Your task to perform on an android device: open chrome and create a bookmark for the current page Image 0: 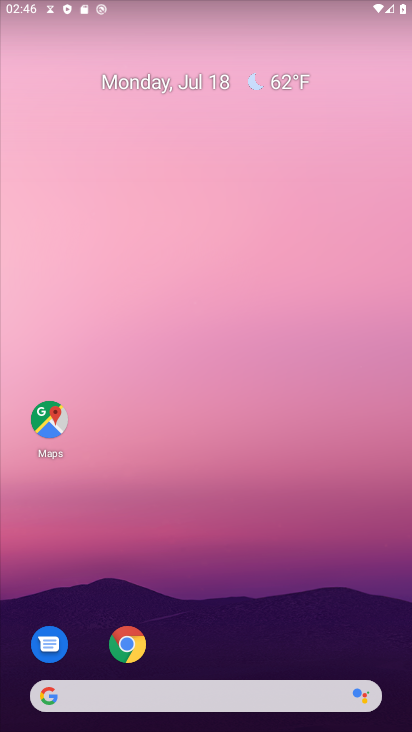
Step 0: drag from (287, 680) to (196, 446)
Your task to perform on an android device: open chrome and create a bookmark for the current page Image 1: 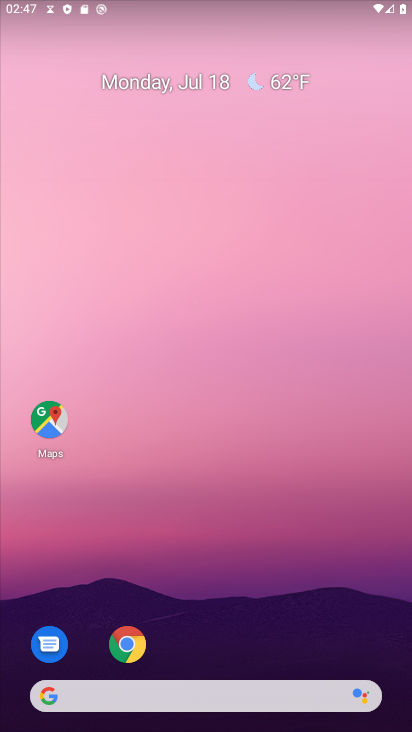
Step 1: click (194, 316)
Your task to perform on an android device: open chrome and create a bookmark for the current page Image 2: 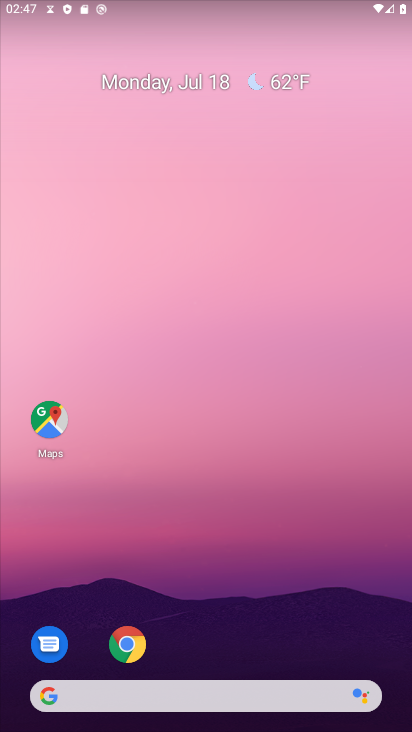
Step 2: click (164, 262)
Your task to perform on an android device: open chrome and create a bookmark for the current page Image 3: 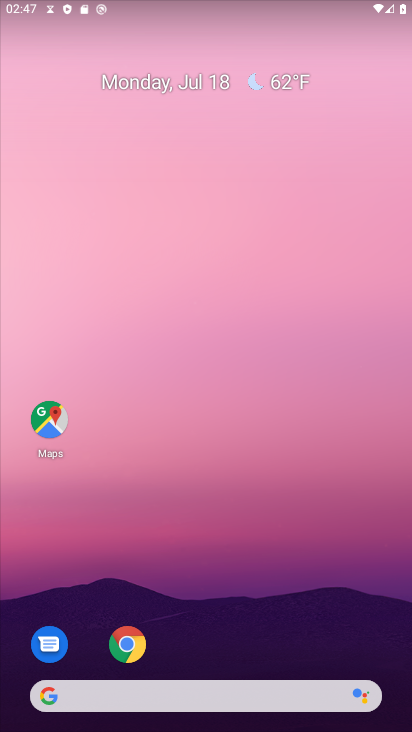
Step 3: drag from (284, 696) to (234, 312)
Your task to perform on an android device: open chrome and create a bookmark for the current page Image 4: 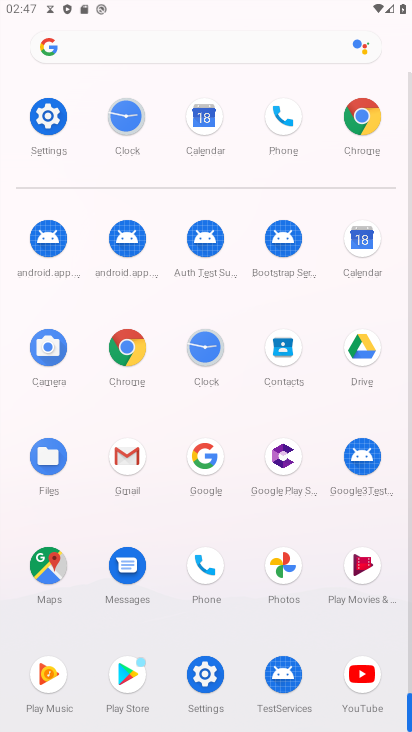
Step 4: click (360, 124)
Your task to perform on an android device: open chrome and create a bookmark for the current page Image 5: 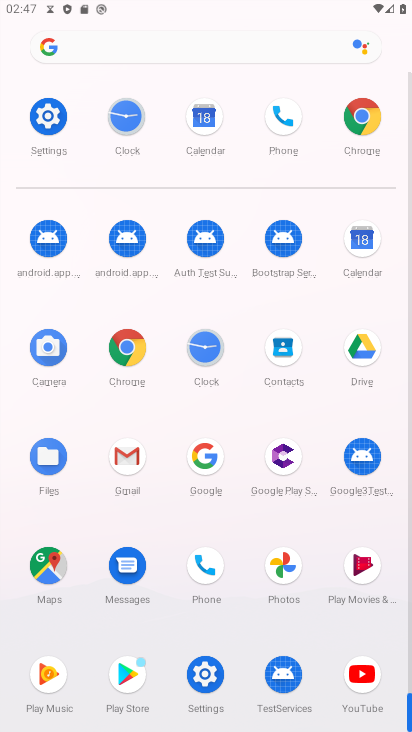
Step 5: click (361, 126)
Your task to perform on an android device: open chrome and create a bookmark for the current page Image 6: 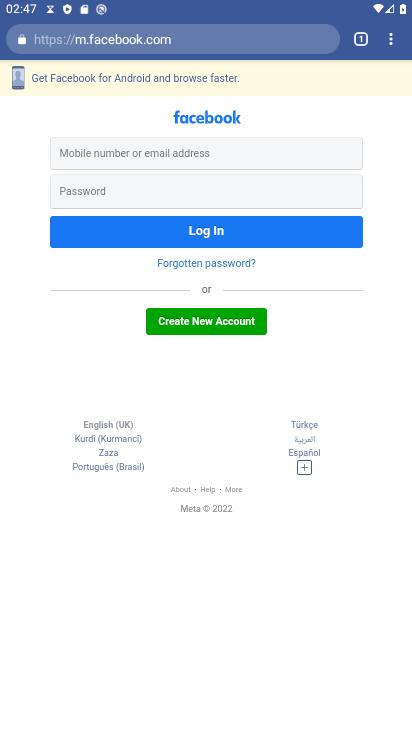
Step 6: press back button
Your task to perform on an android device: open chrome and create a bookmark for the current page Image 7: 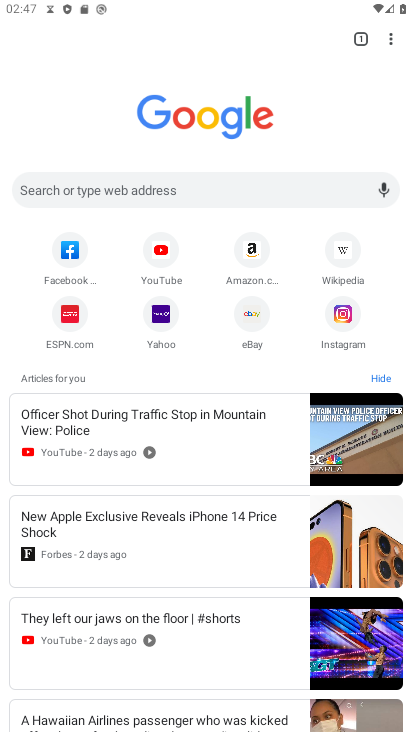
Step 7: click (104, 184)
Your task to perform on an android device: open chrome and create a bookmark for the current page Image 8: 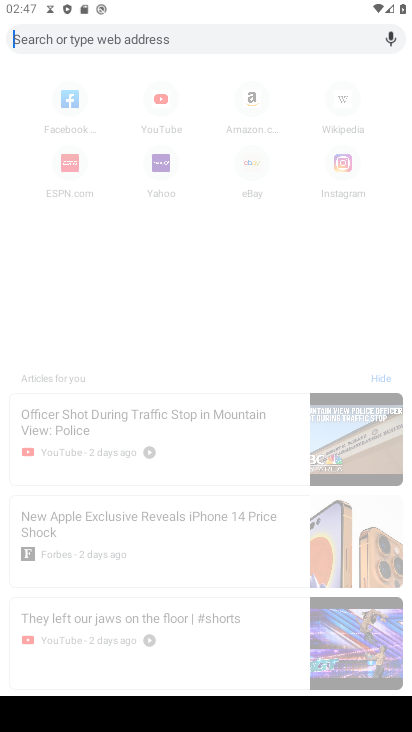
Step 8: type " cv v "
Your task to perform on an android device: open chrome and create a bookmark for the current page Image 9: 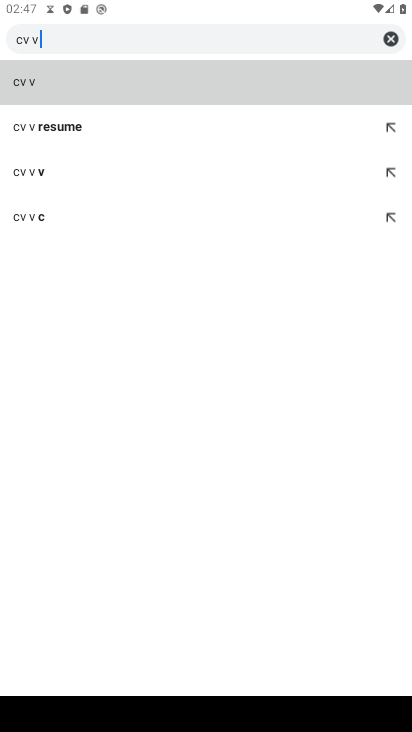
Step 9: click (392, 129)
Your task to perform on an android device: open chrome and create a bookmark for the current page Image 10: 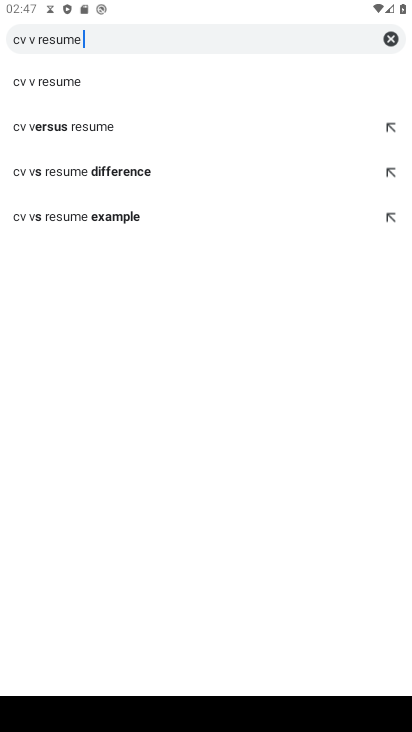
Step 10: click (103, 35)
Your task to perform on an android device: open chrome and create a bookmark for the current page Image 11: 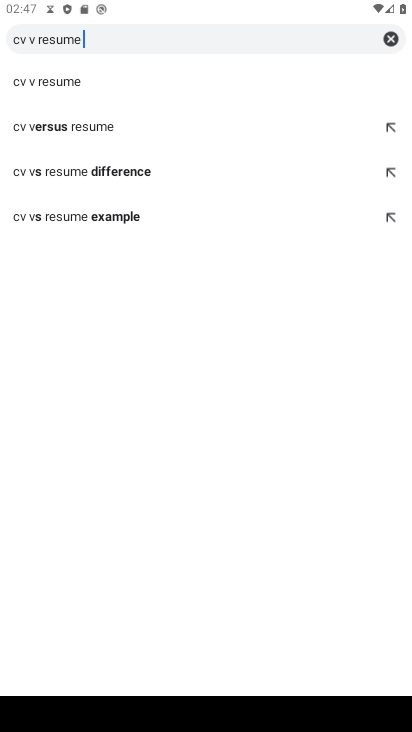
Step 11: click (103, 35)
Your task to perform on an android device: open chrome and create a bookmark for the current page Image 12: 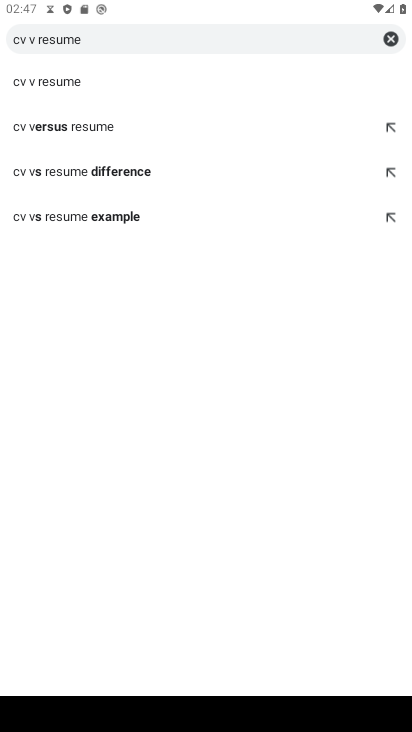
Step 12: click (125, 171)
Your task to perform on an android device: open chrome and create a bookmark for the current page Image 13: 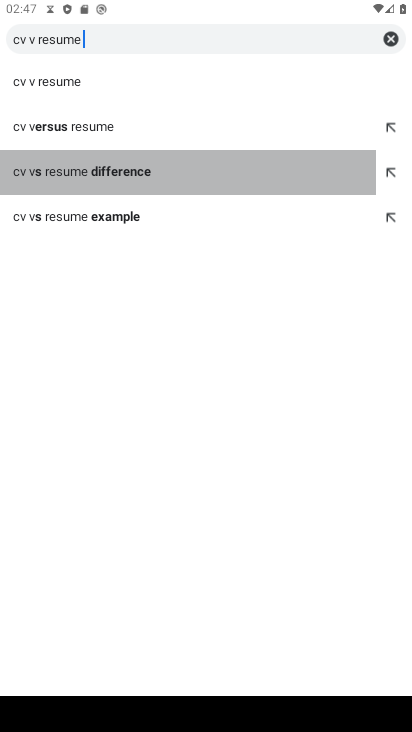
Step 13: click (126, 172)
Your task to perform on an android device: open chrome and create a bookmark for the current page Image 14: 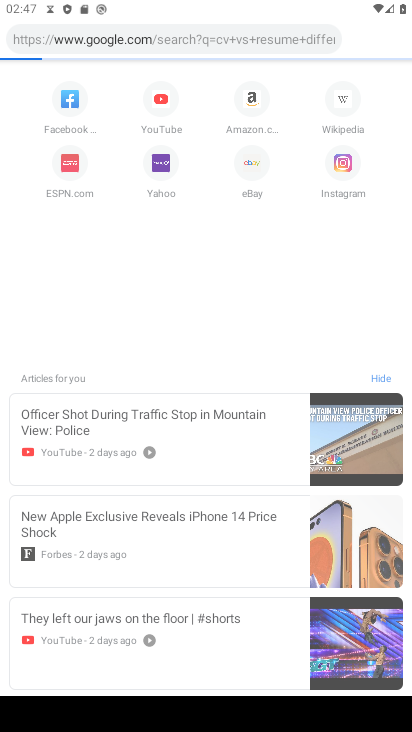
Step 14: click (128, 172)
Your task to perform on an android device: open chrome and create a bookmark for the current page Image 15: 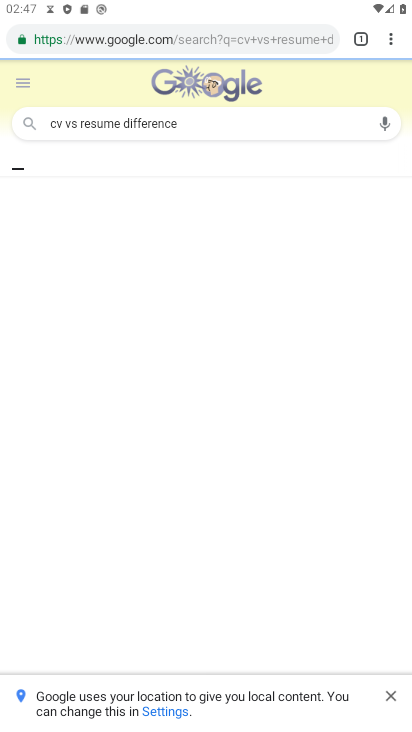
Step 15: drag from (382, 40) to (269, 43)
Your task to perform on an android device: open chrome and create a bookmark for the current page Image 16: 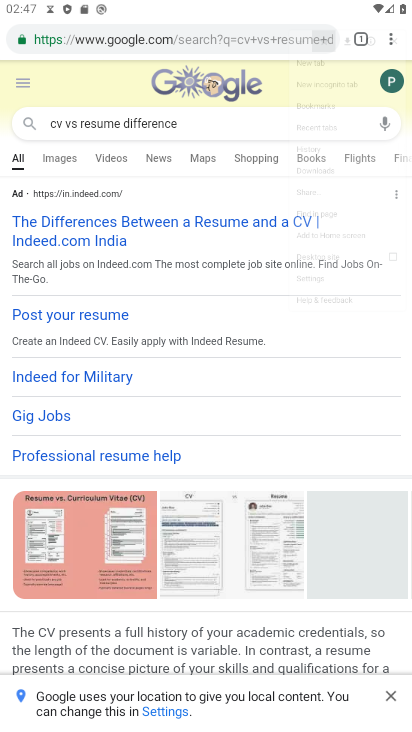
Step 16: click (273, 43)
Your task to perform on an android device: open chrome and create a bookmark for the current page Image 17: 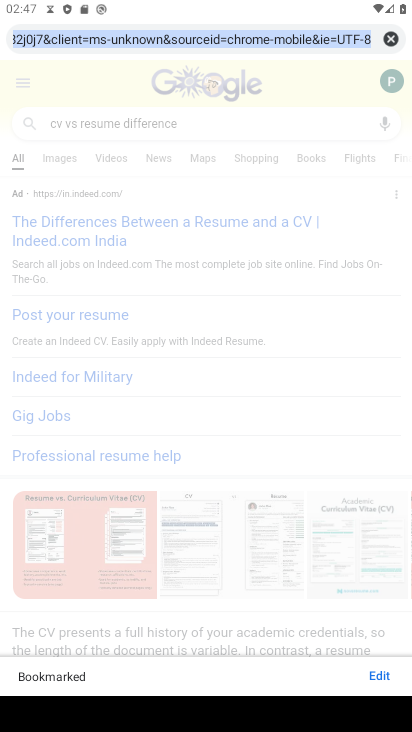
Step 17: task complete